Your task to perform on an android device: Check the weather Image 0: 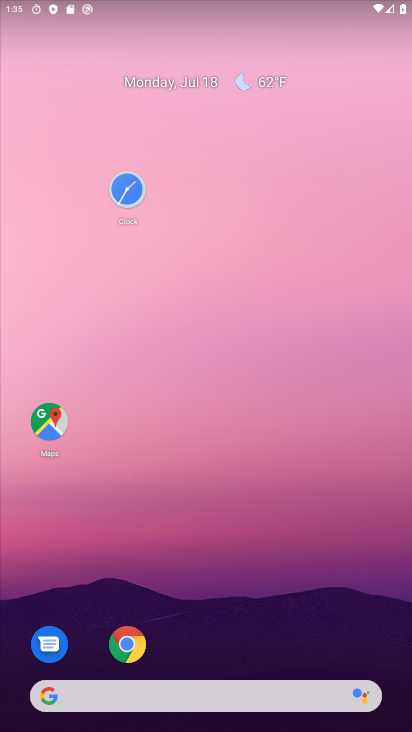
Step 0: click (122, 644)
Your task to perform on an android device: Check the weather Image 1: 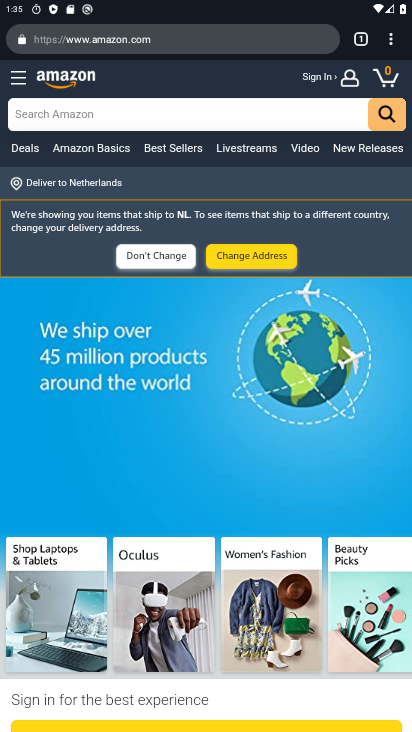
Step 1: click (359, 31)
Your task to perform on an android device: Check the weather Image 2: 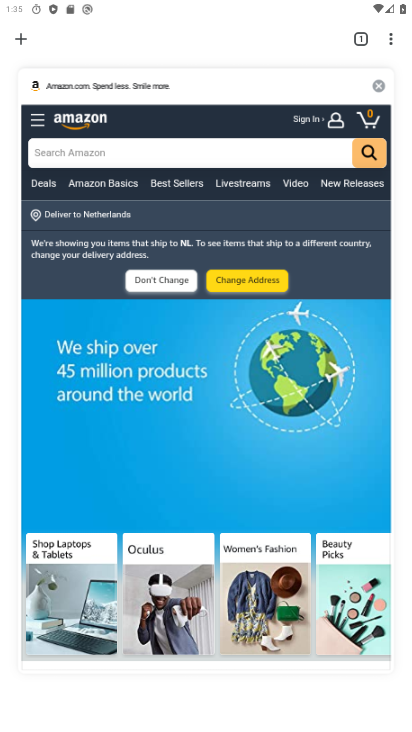
Step 2: click (25, 35)
Your task to perform on an android device: Check the weather Image 3: 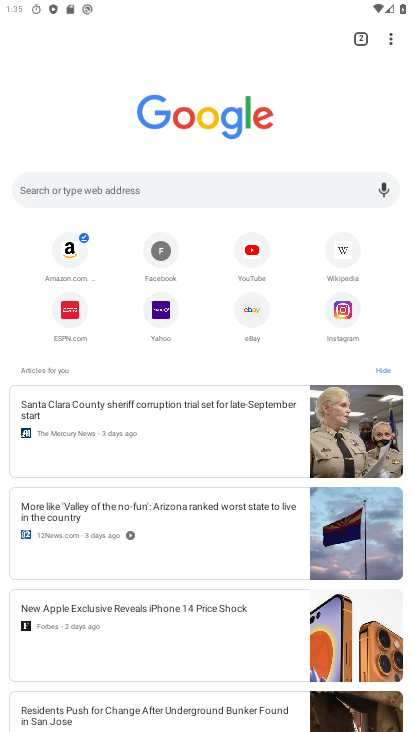
Step 3: click (176, 193)
Your task to perform on an android device: Check the weather Image 4: 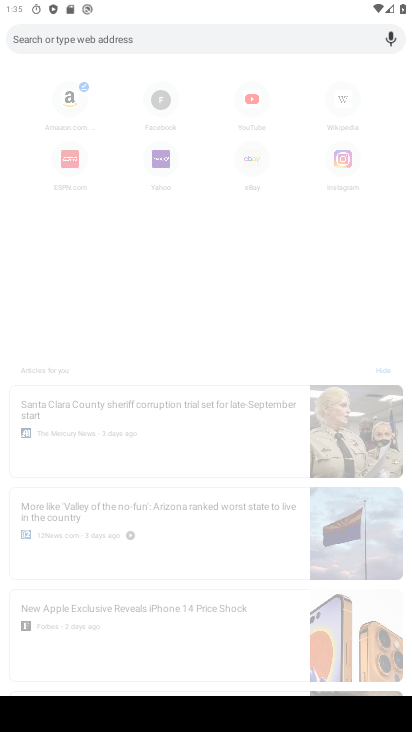
Step 4: type "weather"
Your task to perform on an android device: Check the weather Image 5: 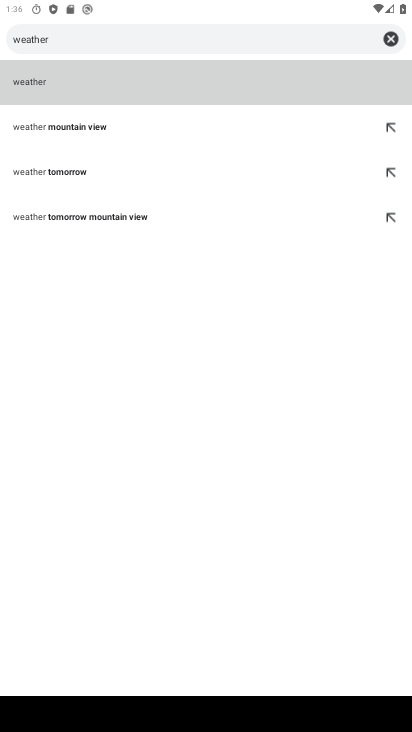
Step 5: click (87, 94)
Your task to perform on an android device: Check the weather Image 6: 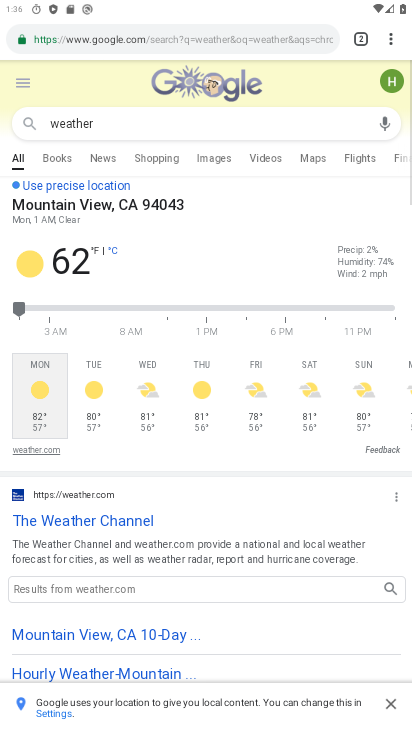
Step 6: task complete